Your task to perform on an android device: change your default location settings in chrome Image 0: 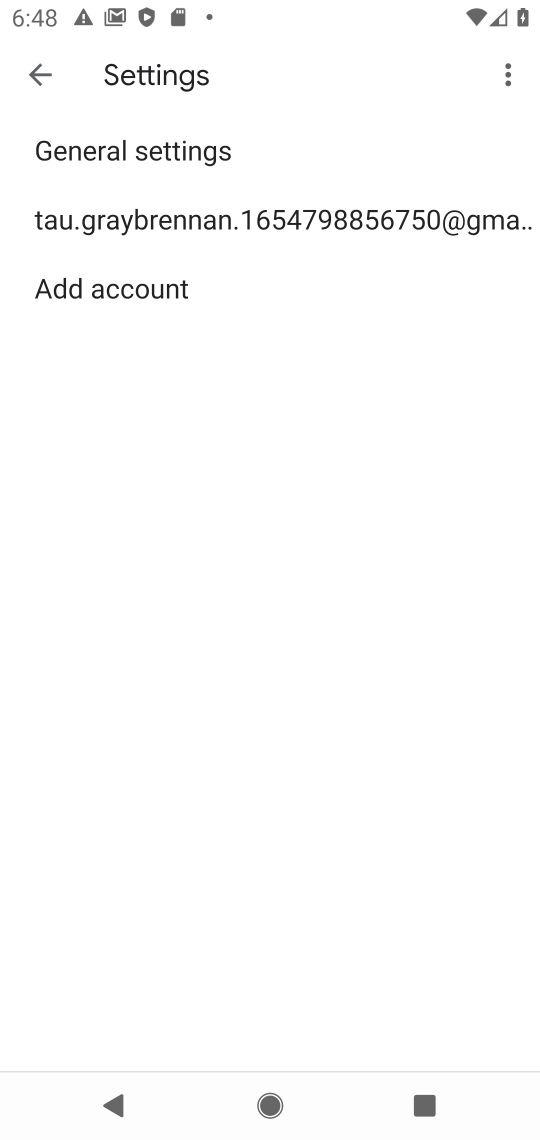
Step 0: press home button
Your task to perform on an android device: change your default location settings in chrome Image 1: 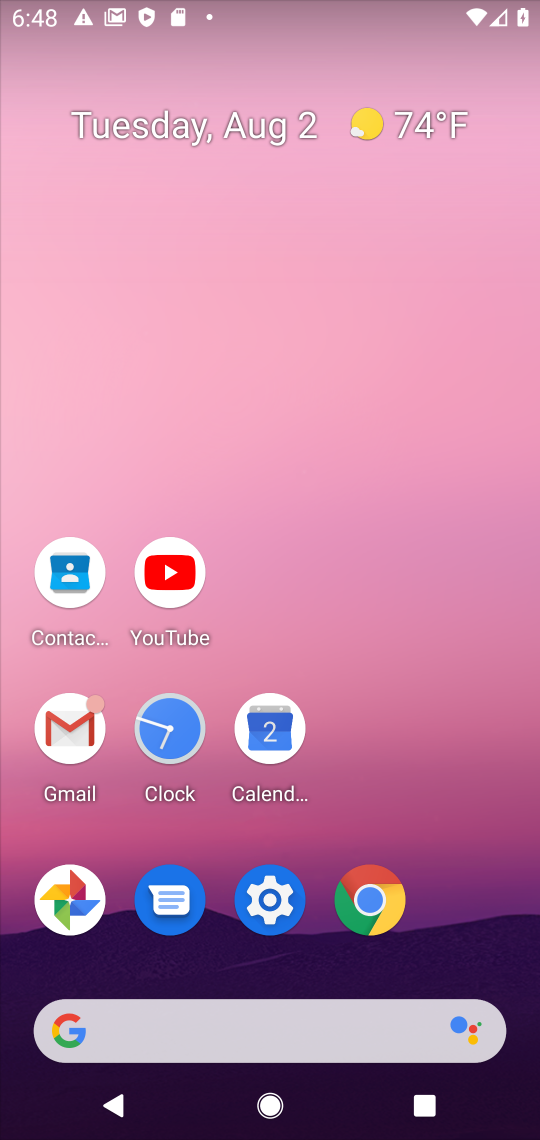
Step 1: click (370, 907)
Your task to perform on an android device: change your default location settings in chrome Image 2: 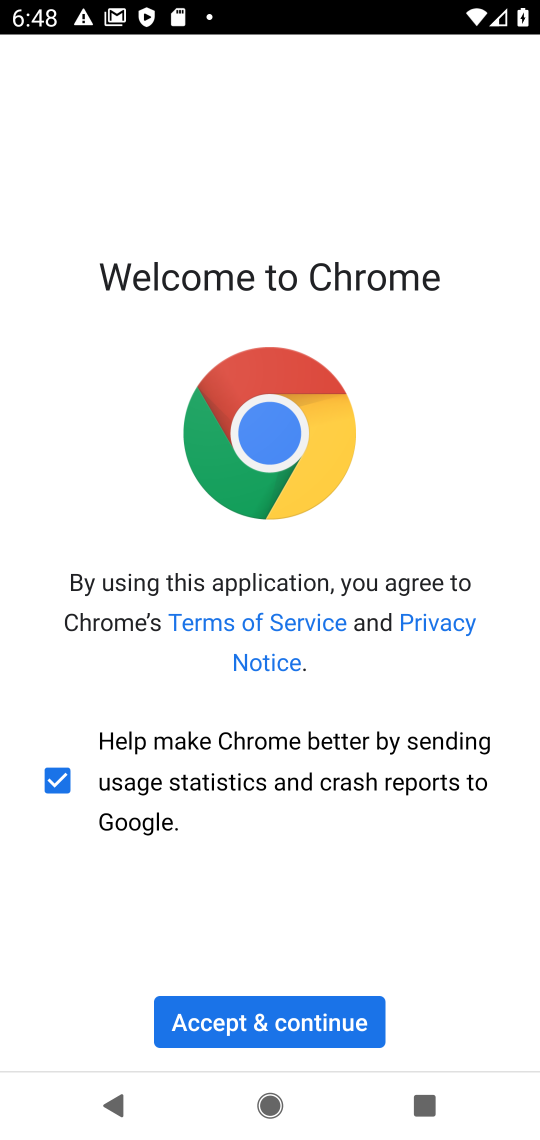
Step 2: click (286, 1027)
Your task to perform on an android device: change your default location settings in chrome Image 3: 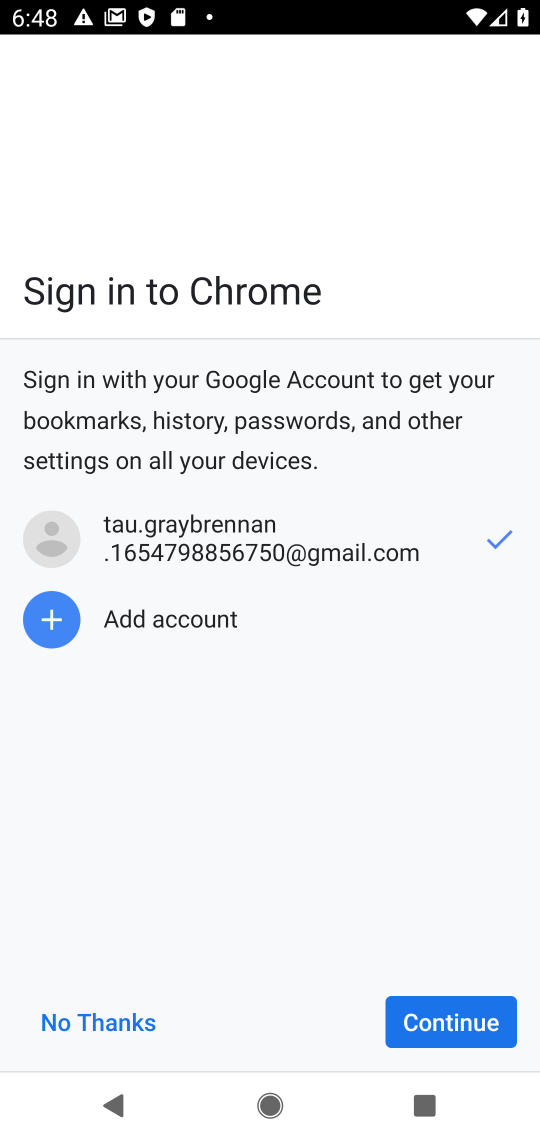
Step 3: click (432, 1029)
Your task to perform on an android device: change your default location settings in chrome Image 4: 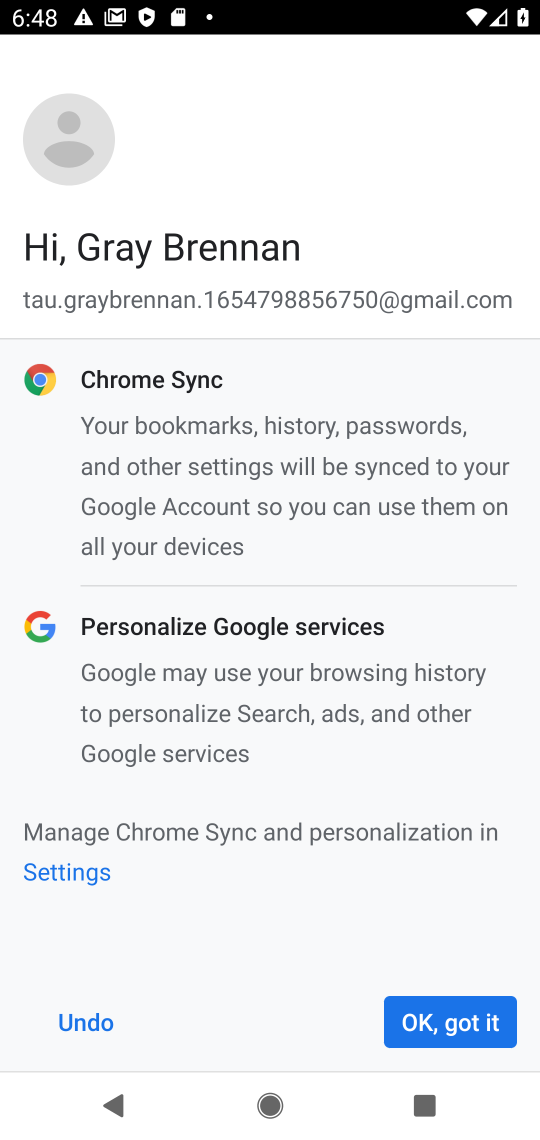
Step 4: click (446, 1013)
Your task to perform on an android device: change your default location settings in chrome Image 5: 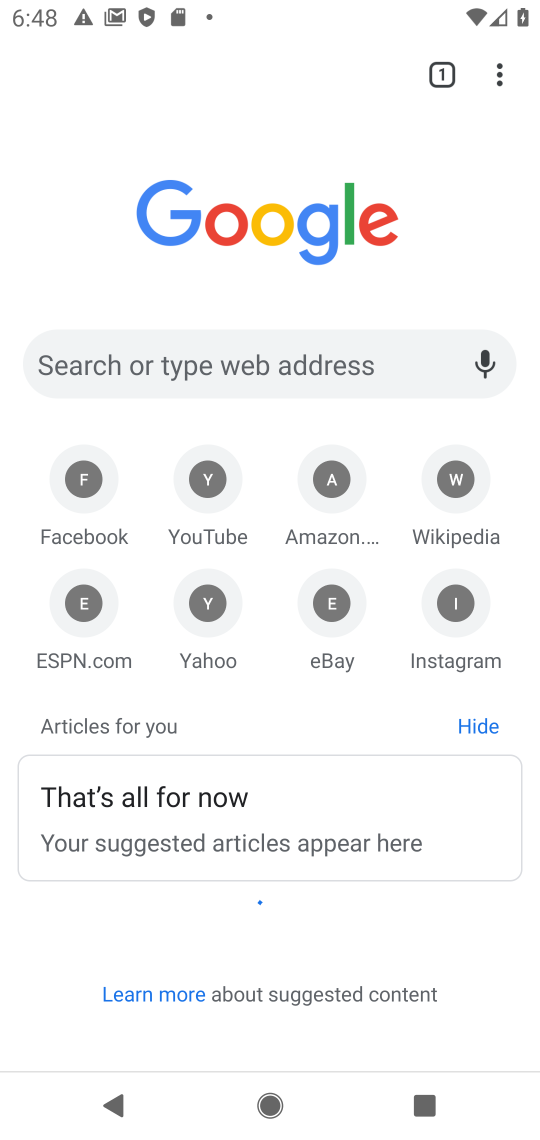
Step 5: click (505, 77)
Your task to perform on an android device: change your default location settings in chrome Image 6: 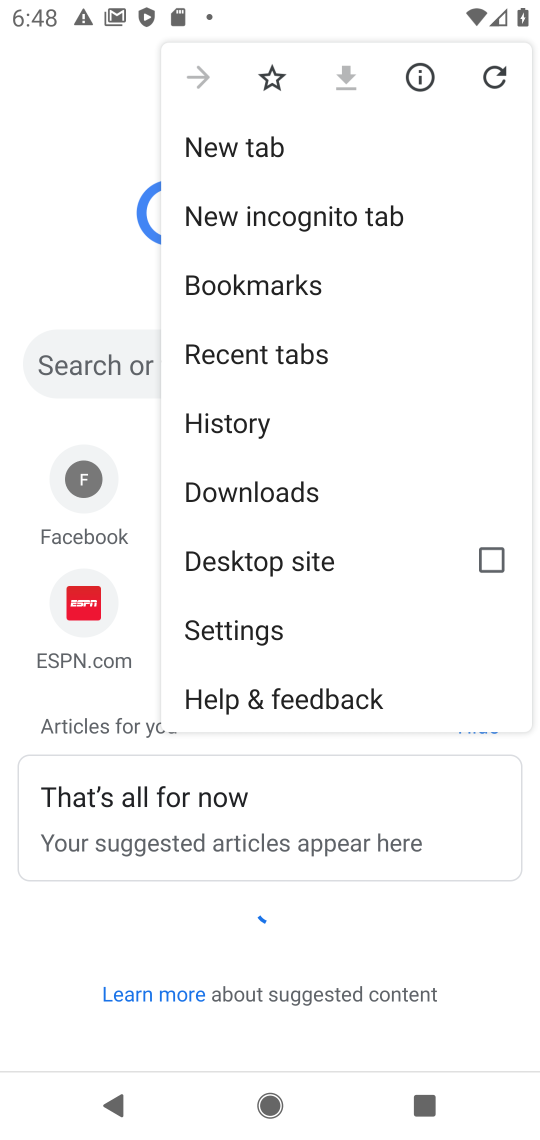
Step 6: click (226, 627)
Your task to perform on an android device: change your default location settings in chrome Image 7: 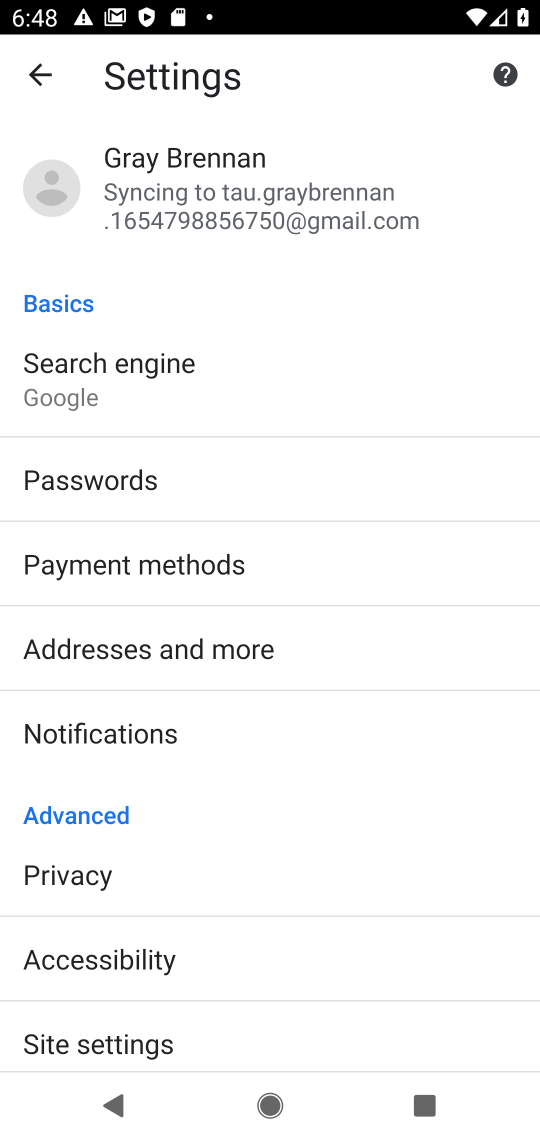
Step 7: drag from (271, 964) to (244, 520)
Your task to perform on an android device: change your default location settings in chrome Image 8: 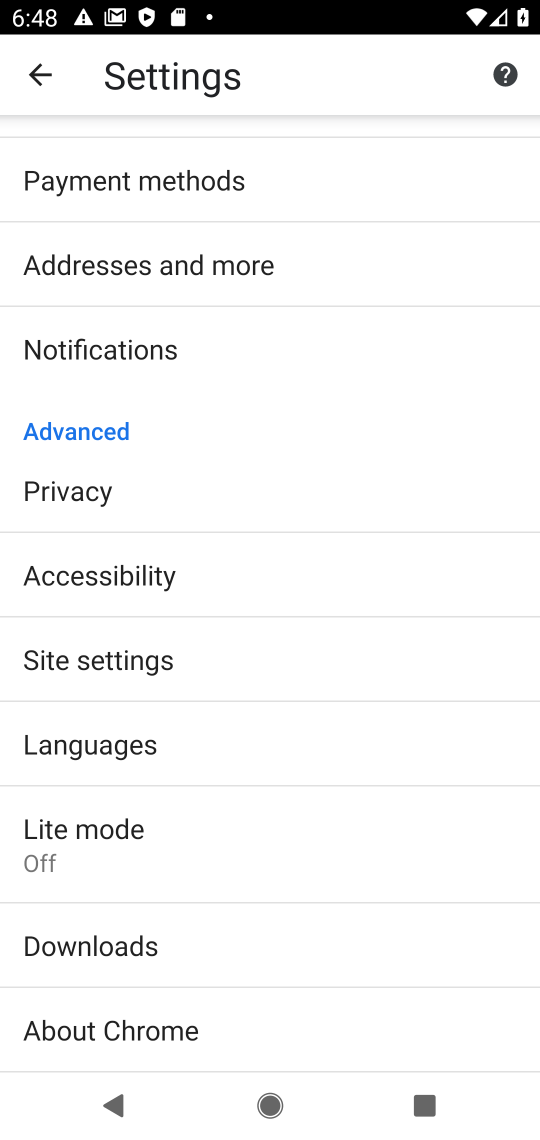
Step 8: click (92, 662)
Your task to perform on an android device: change your default location settings in chrome Image 9: 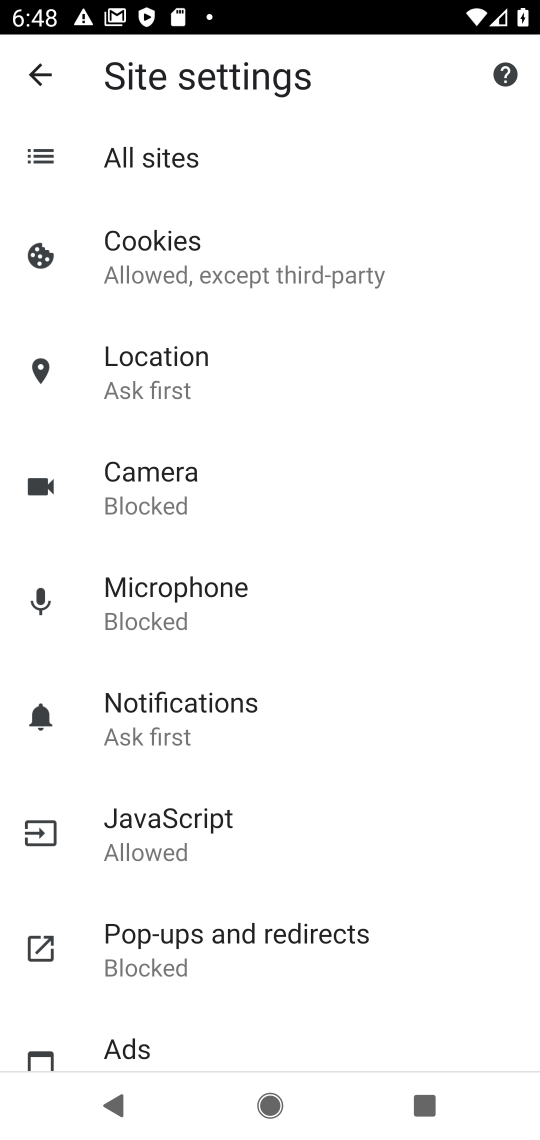
Step 9: click (152, 354)
Your task to perform on an android device: change your default location settings in chrome Image 10: 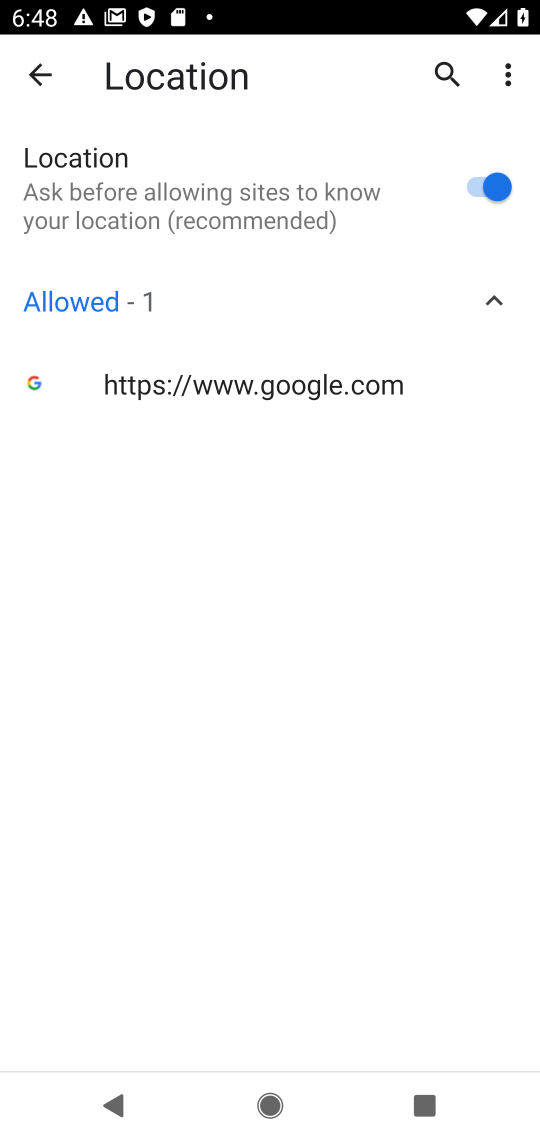
Step 10: click (504, 197)
Your task to perform on an android device: change your default location settings in chrome Image 11: 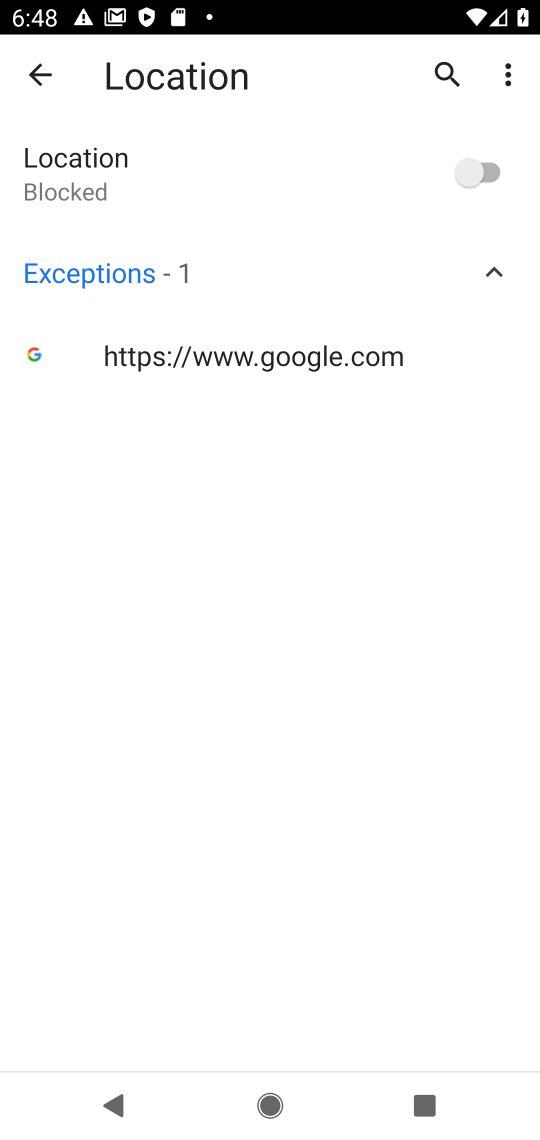
Step 11: task complete